Your task to perform on an android device: open app "LinkedIn" (install if not already installed) Image 0: 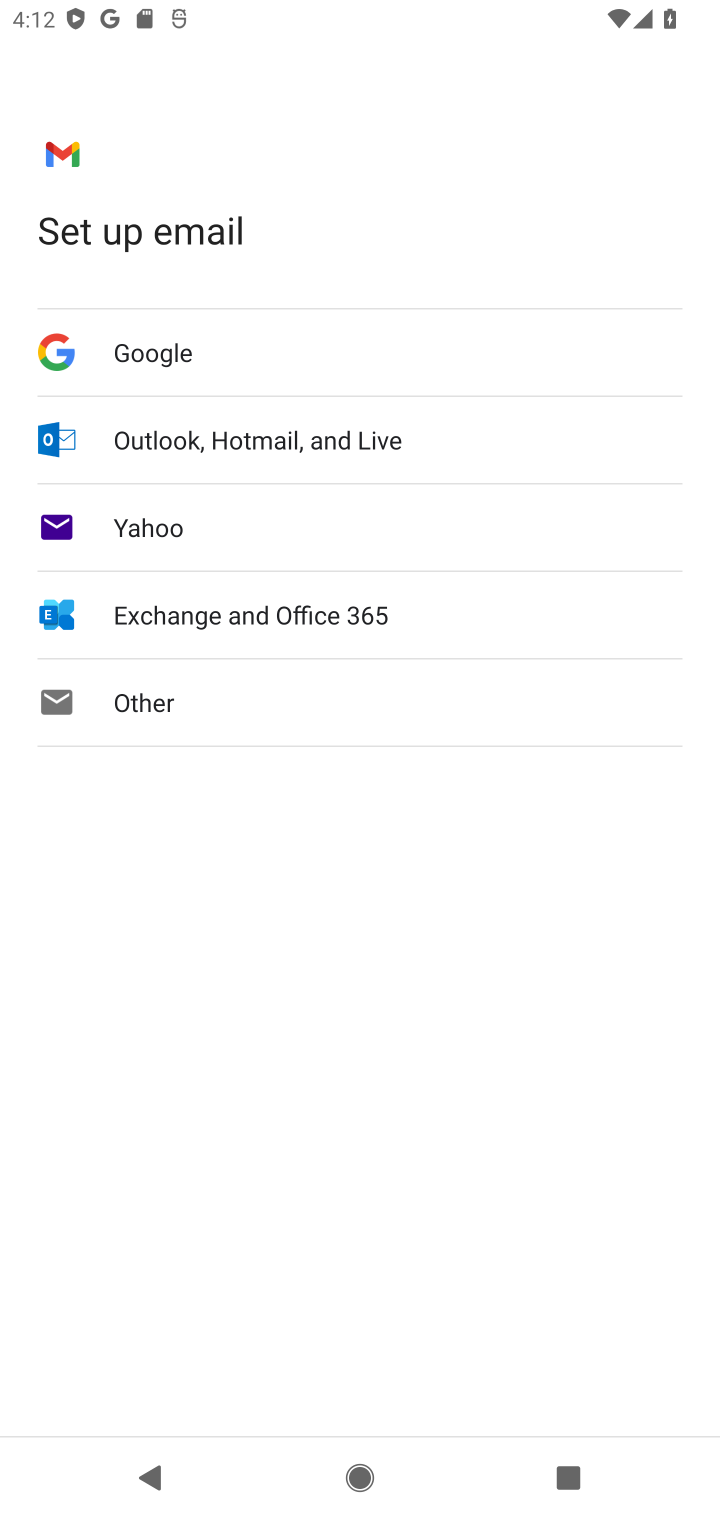
Step 0: press home button
Your task to perform on an android device: open app "LinkedIn" (install if not already installed) Image 1: 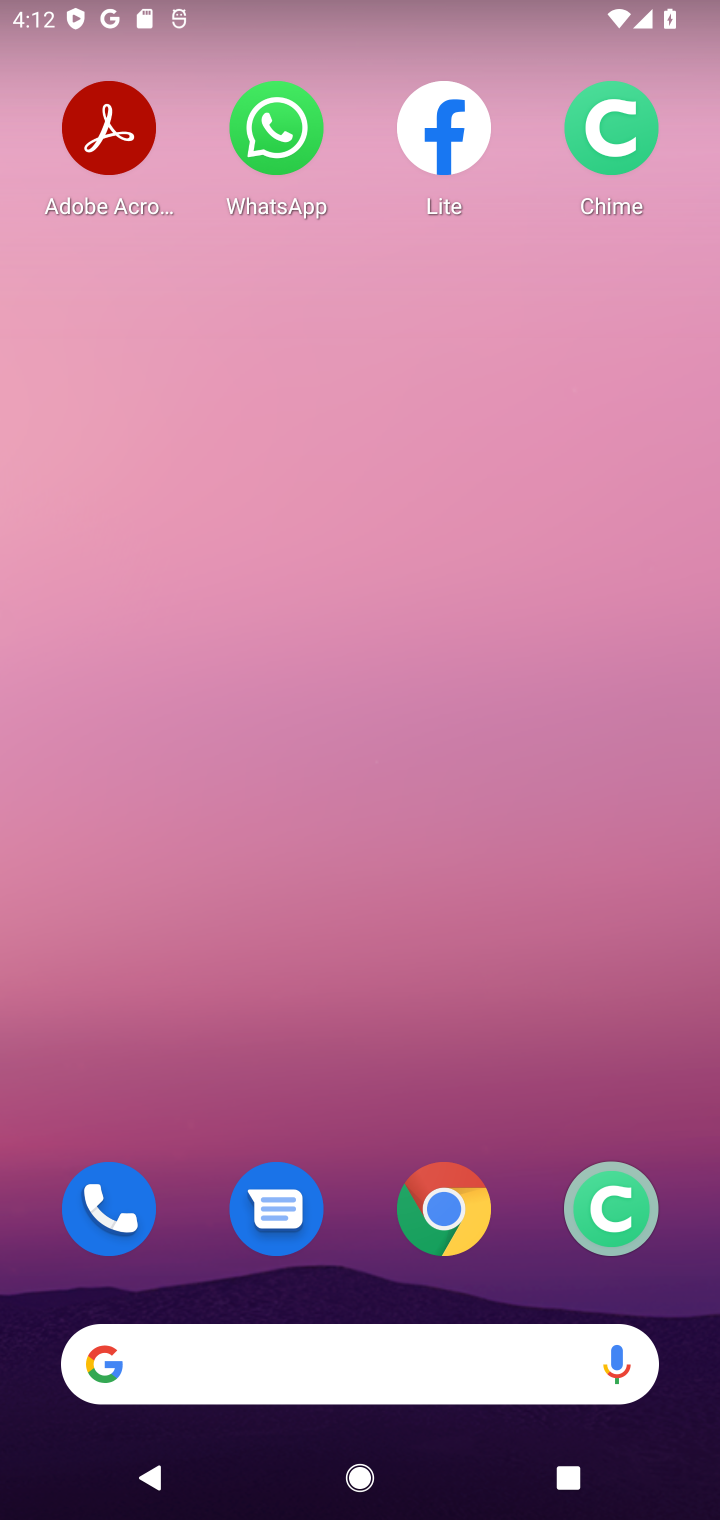
Step 1: drag from (159, 1311) to (220, 225)
Your task to perform on an android device: open app "LinkedIn" (install if not already installed) Image 2: 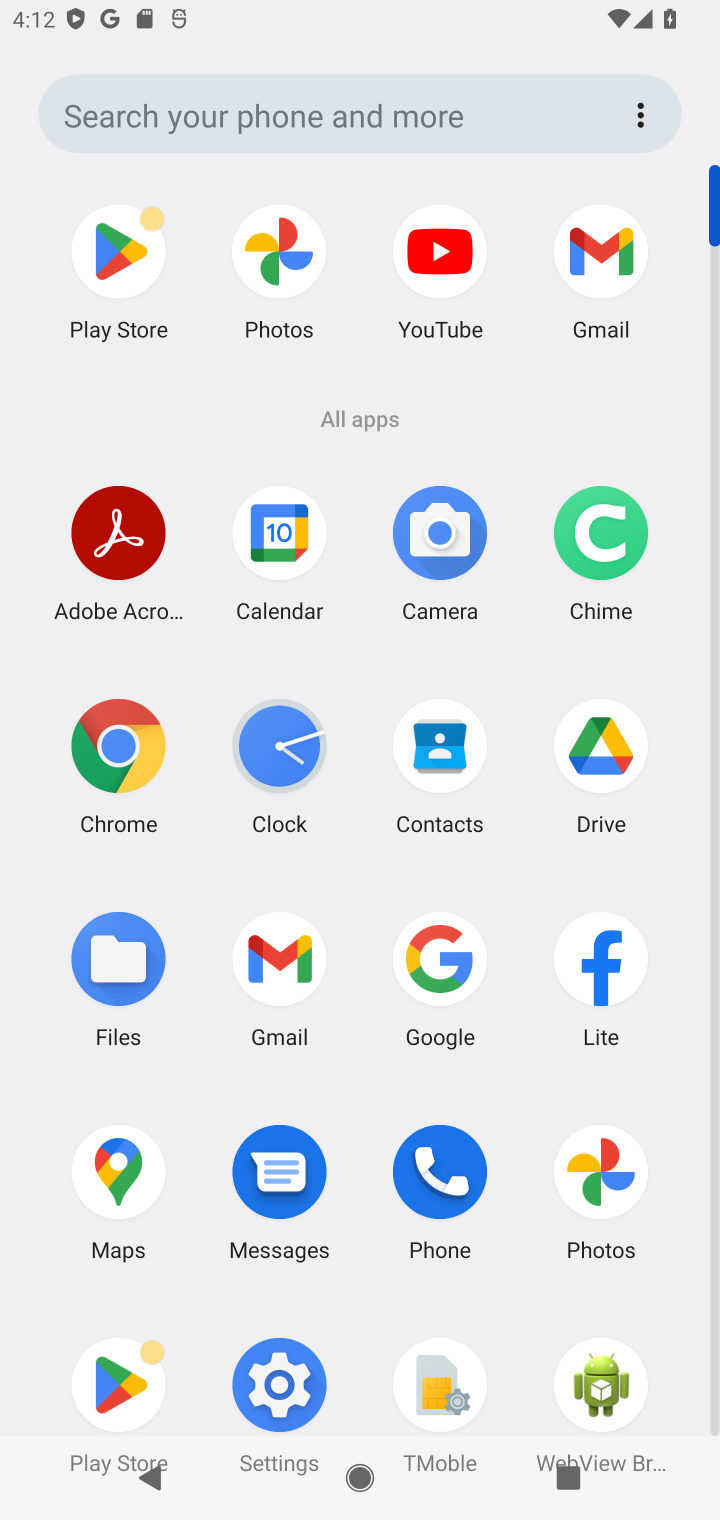
Step 2: drag from (320, 1344) to (413, 288)
Your task to perform on an android device: open app "LinkedIn" (install if not already installed) Image 3: 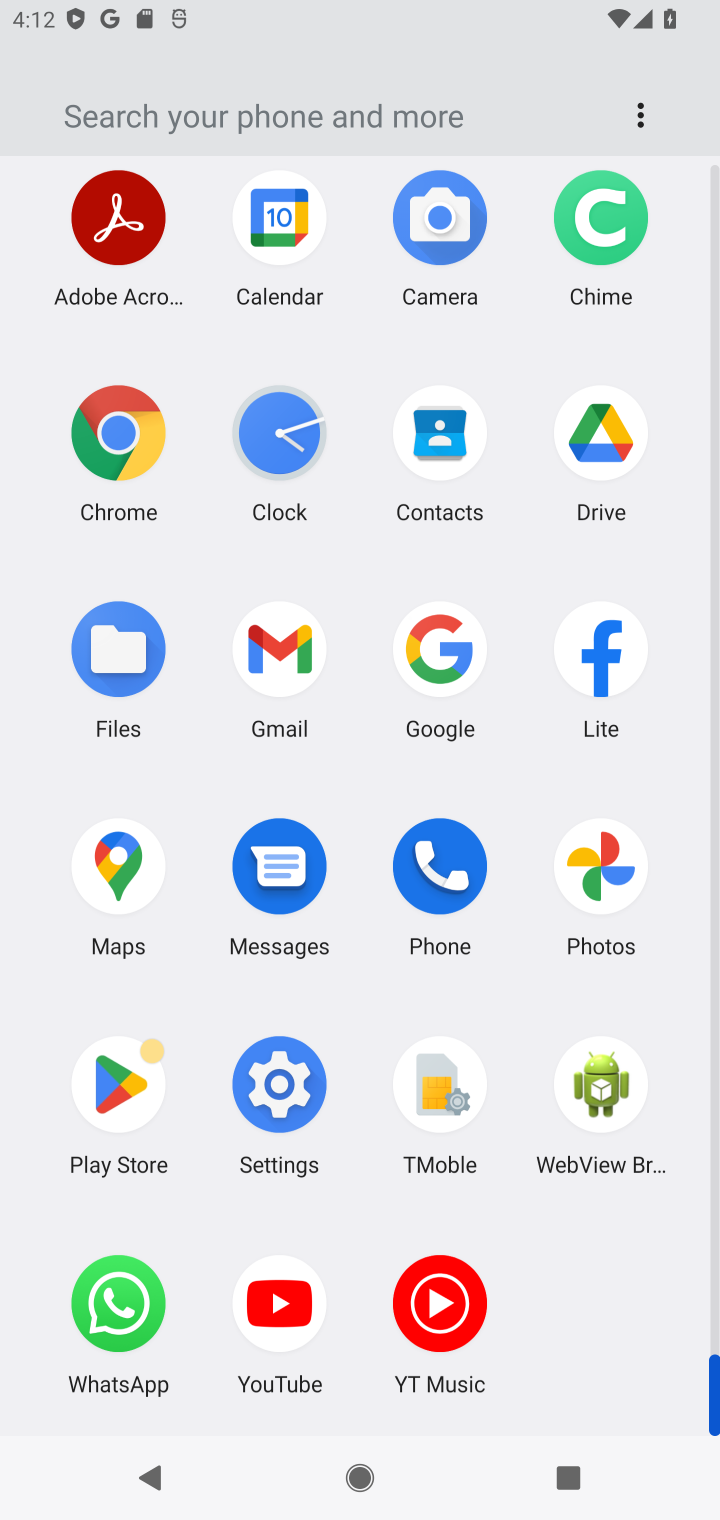
Step 3: drag from (413, 288) to (392, 1505)
Your task to perform on an android device: open app "LinkedIn" (install if not already installed) Image 4: 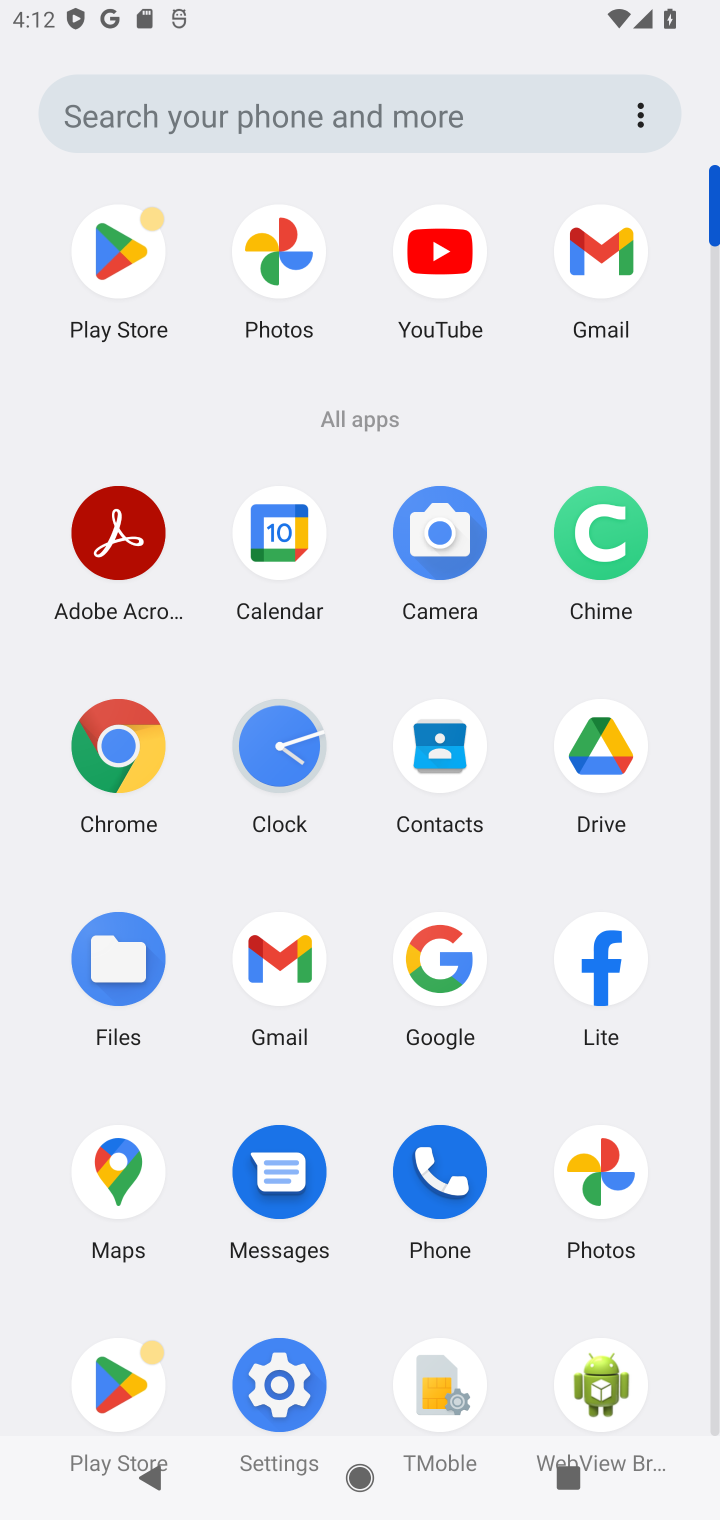
Step 4: click (135, 352)
Your task to perform on an android device: open app "LinkedIn" (install if not already installed) Image 5: 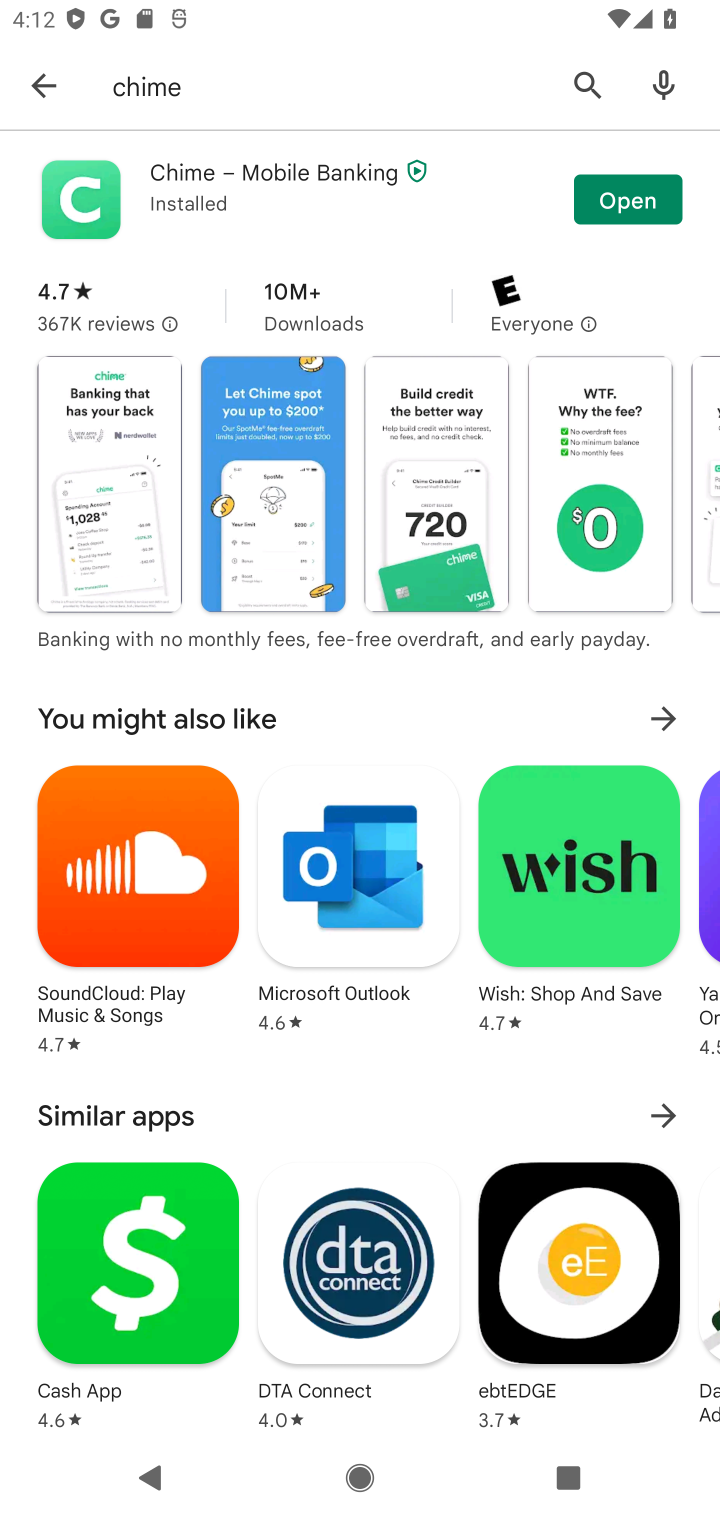
Step 5: click (571, 101)
Your task to perform on an android device: open app "LinkedIn" (install if not already installed) Image 6: 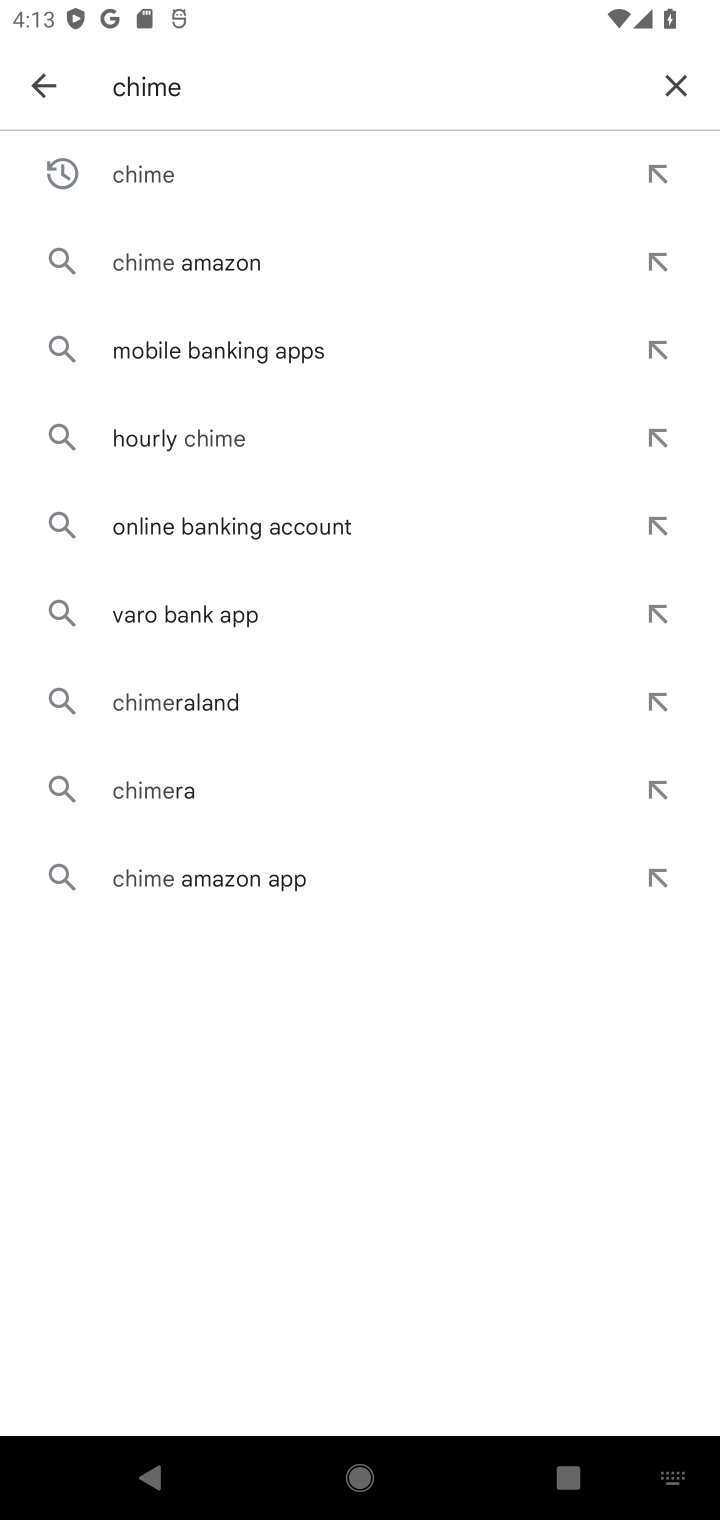
Step 6: click (660, 93)
Your task to perform on an android device: open app "LinkedIn" (install if not already installed) Image 7: 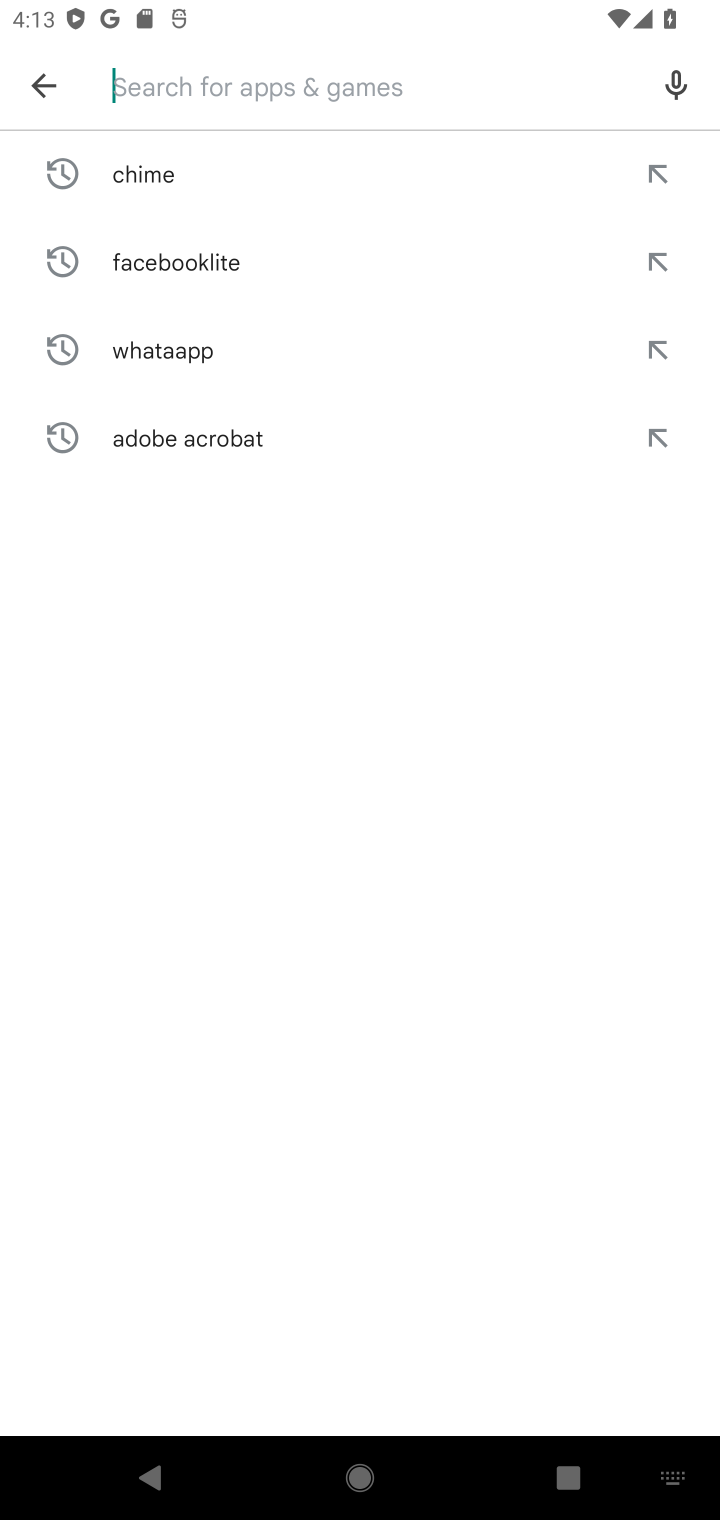
Step 7: type "linkedin"
Your task to perform on an android device: open app "LinkedIn" (install if not already installed) Image 8: 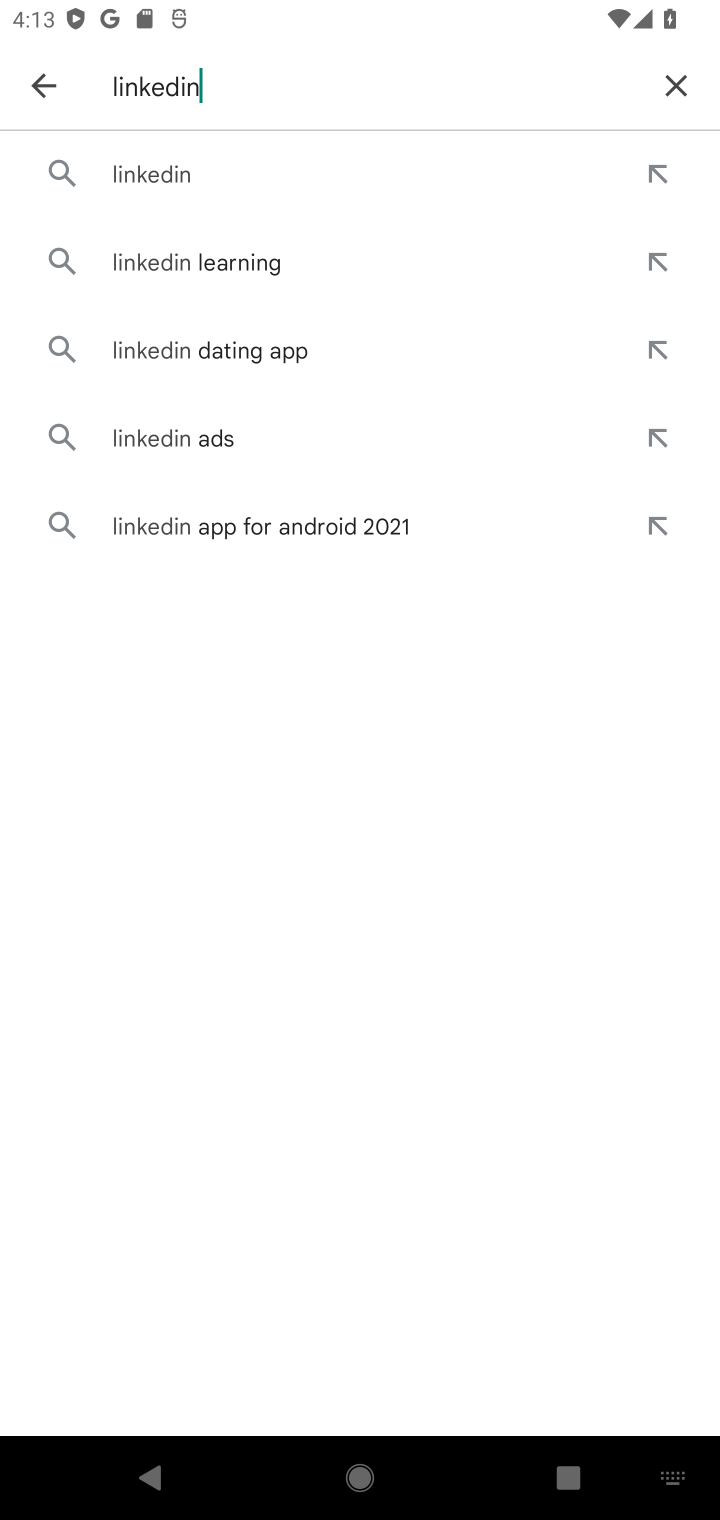
Step 8: click (345, 190)
Your task to perform on an android device: open app "LinkedIn" (install if not already installed) Image 9: 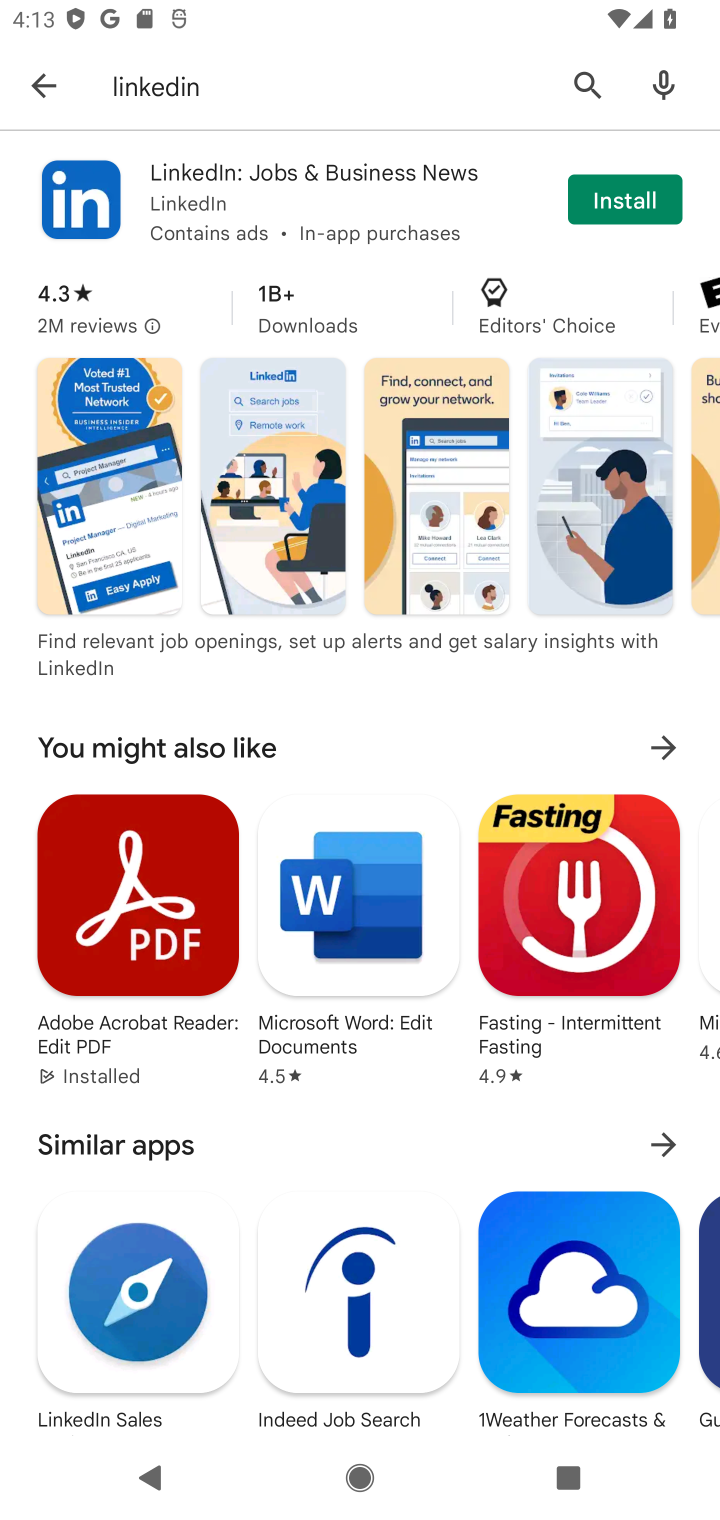
Step 9: click (607, 185)
Your task to perform on an android device: open app "LinkedIn" (install if not already installed) Image 10: 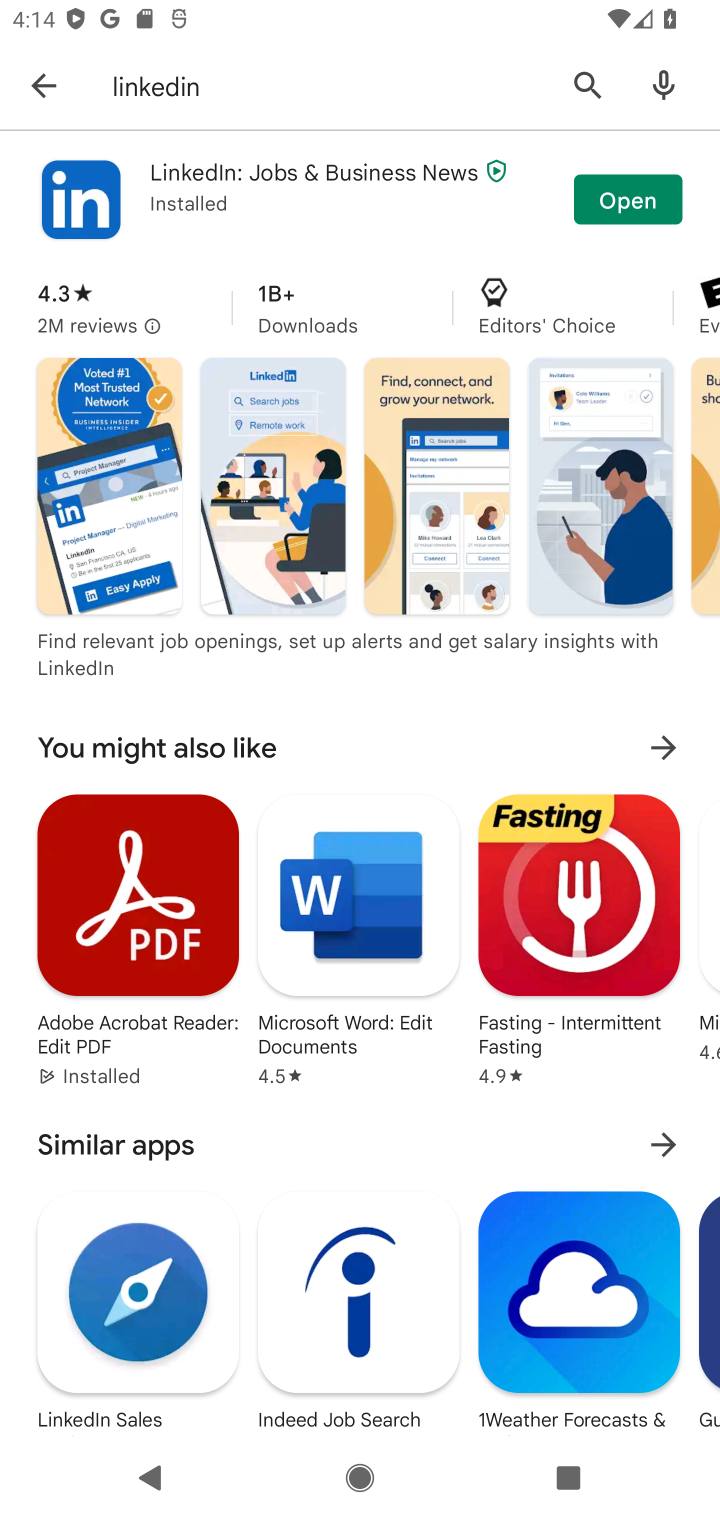
Step 10: task complete